Your task to perform on an android device: Open Google Chrome Image 0: 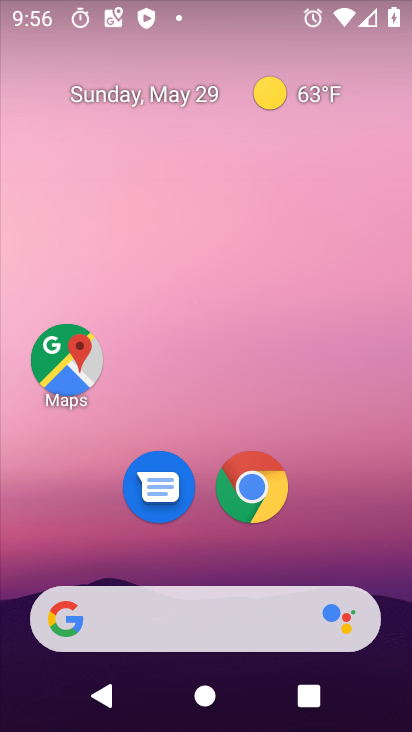
Step 0: drag from (214, 542) to (274, 13)
Your task to perform on an android device: Open Google Chrome Image 1: 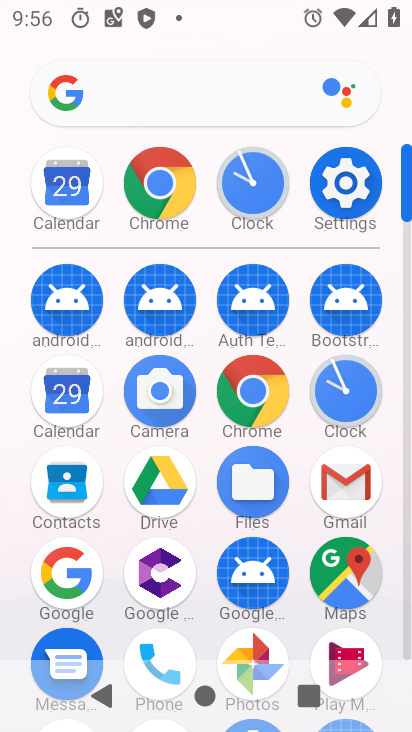
Step 1: click (180, 194)
Your task to perform on an android device: Open Google Chrome Image 2: 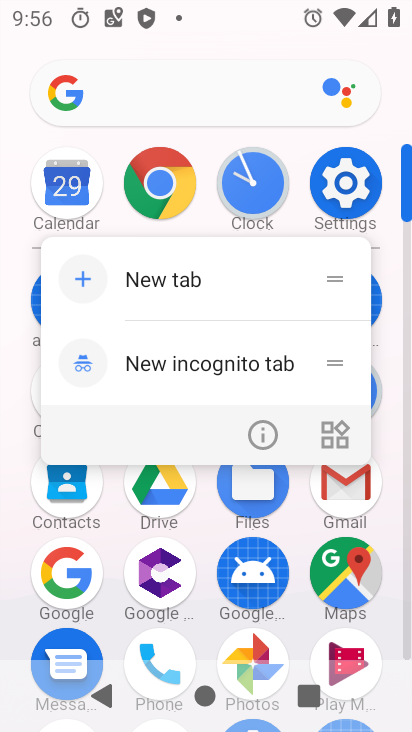
Step 2: click (167, 195)
Your task to perform on an android device: Open Google Chrome Image 3: 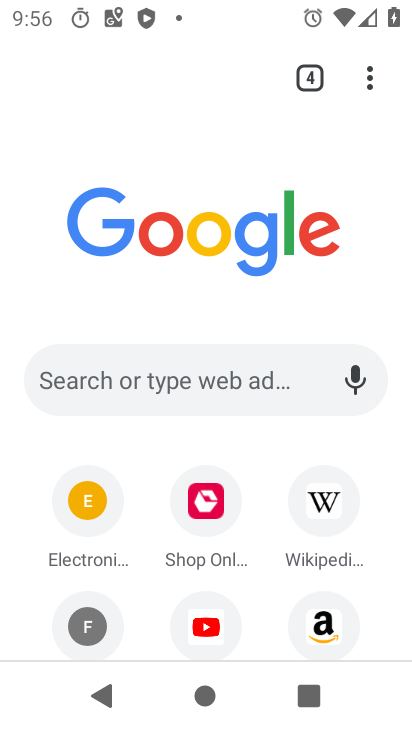
Step 3: task complete